Your task to perform on an android device: Open Google Image 0: 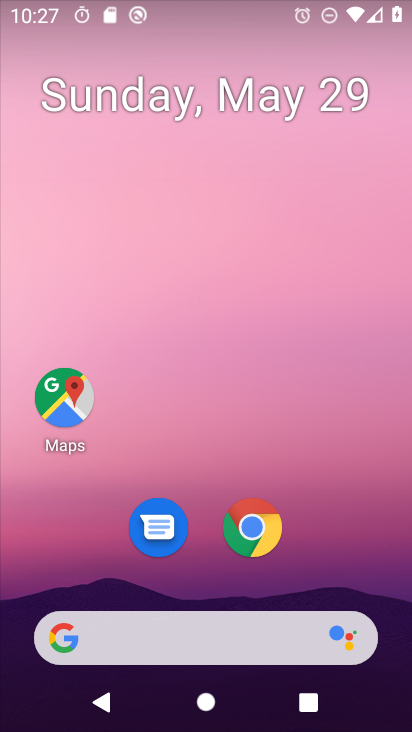
Step 0: drag from (390, 632) to (248, 96)
Your task to perform on an android device: Open Google Image 1: 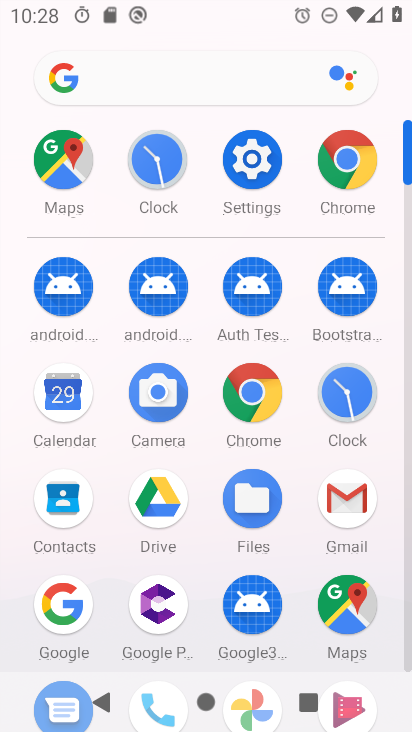
Step 1: click (80, 608)
Your task to perform on an android device: Open Google Image 2: 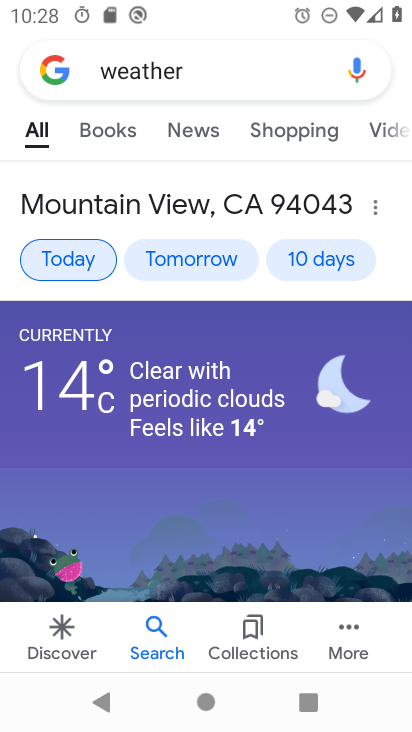
Step 2: task complete